Your task to perform on an android device: delete a single message in the gmail app Image 0: 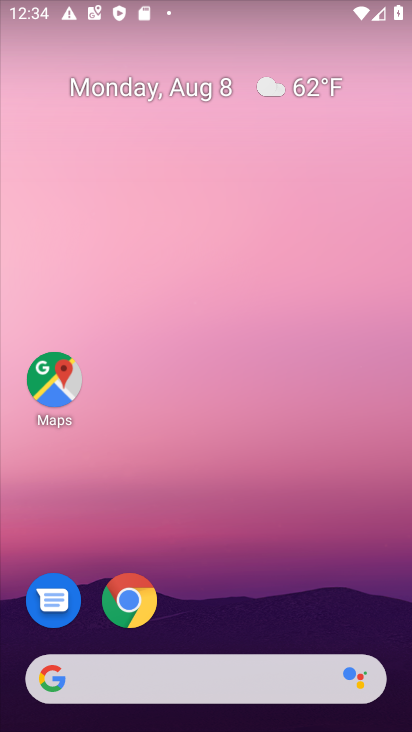
Step 0: drag from (225, 602) to (231, 204)
Your task to perform on an android device: delete a single message in the gmail app Image 1: 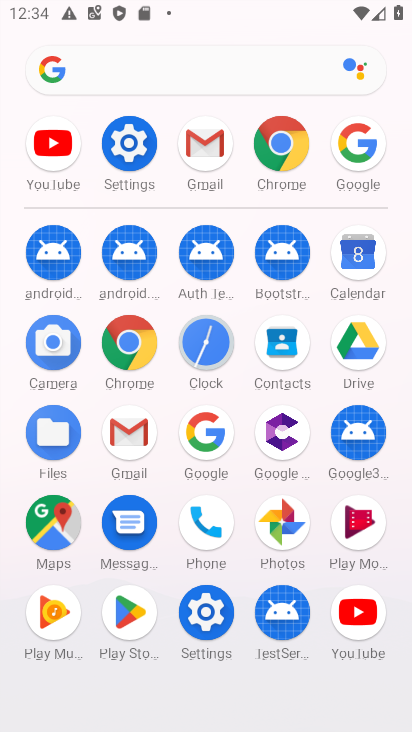
Step 1: click (216, 162)
Your task to perform on an android device: delete a single message in the gmail app Image 2: 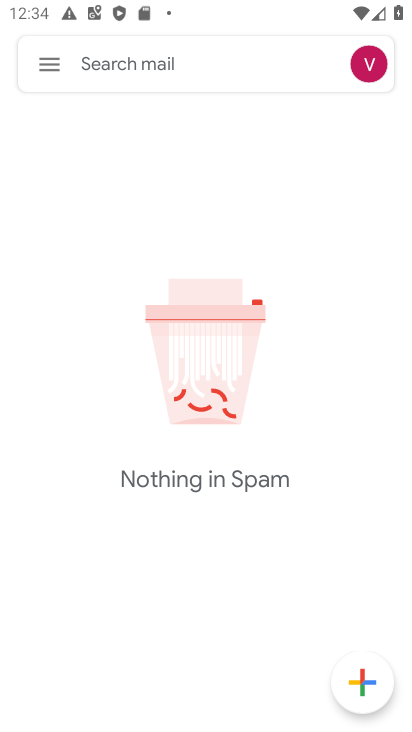
Step 2: click (60, 70)
Your task to perform on an android device: delete a single message in the gmail app Image 3: 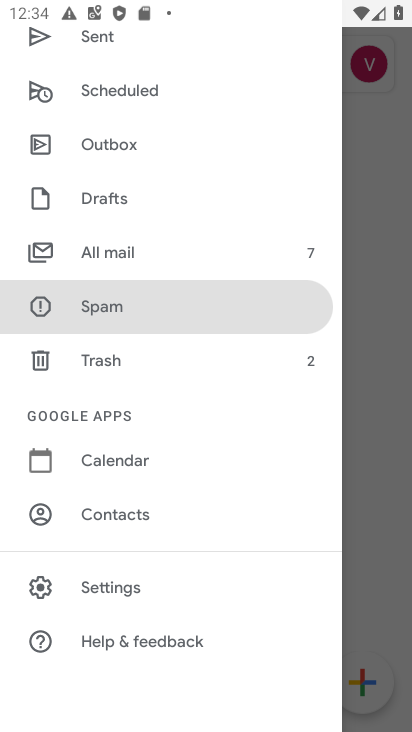
Step 3: click (140, 245)
Your task to perform on an android device: delete a single message in the gmail app Image 4: 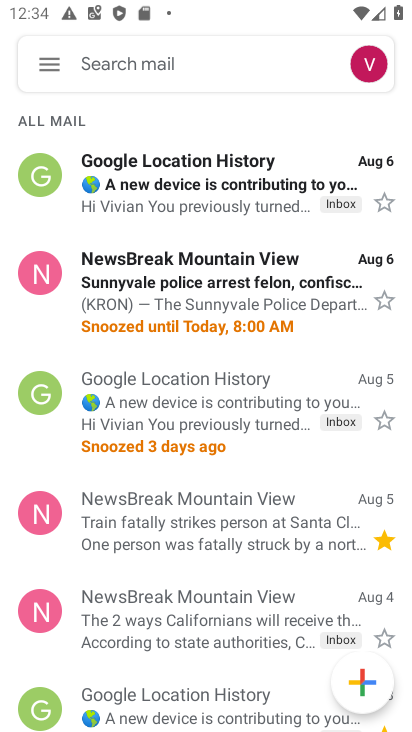
Step 4: click (53, 73)
Your task to perform on an android device: delete a single message in the gmail app Image 5: 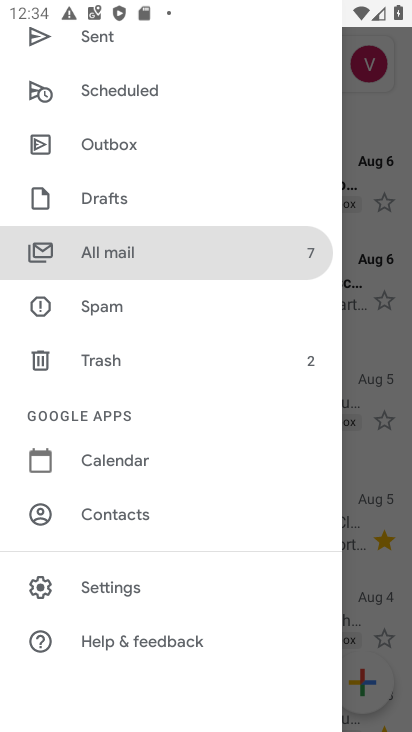
Step 5: click (120, 580)
Your task to perform on an android device: delete a single message in the gmail app Image 6: 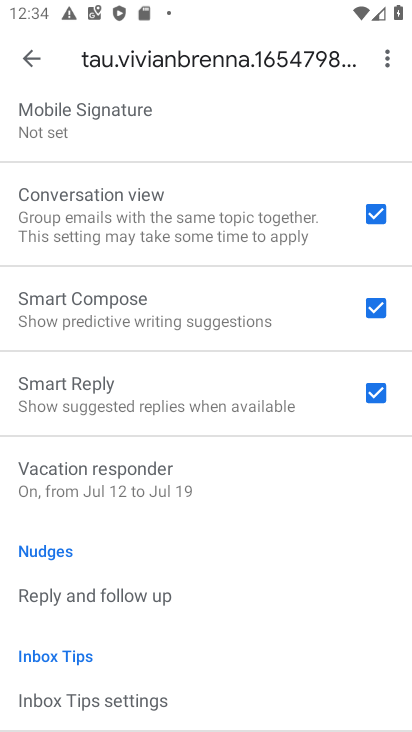
Step 6: click (23, 60)
Your task to perform on an android device: delete a single message in the gmail app Image 7: 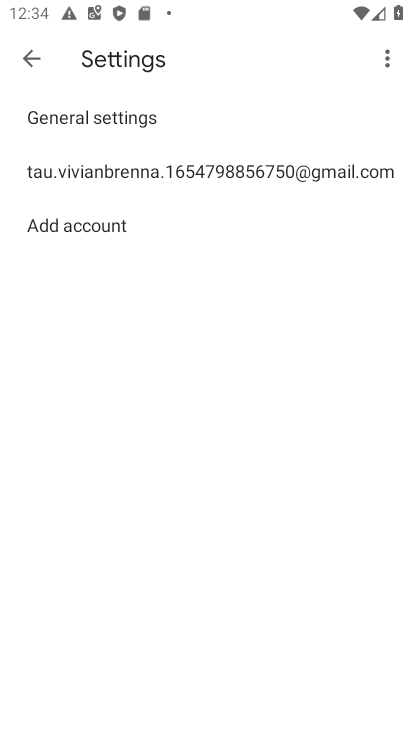
Step 7: click (31, 65)
Your task to perform on an android device: delete a single message in the gmail app Image 8: 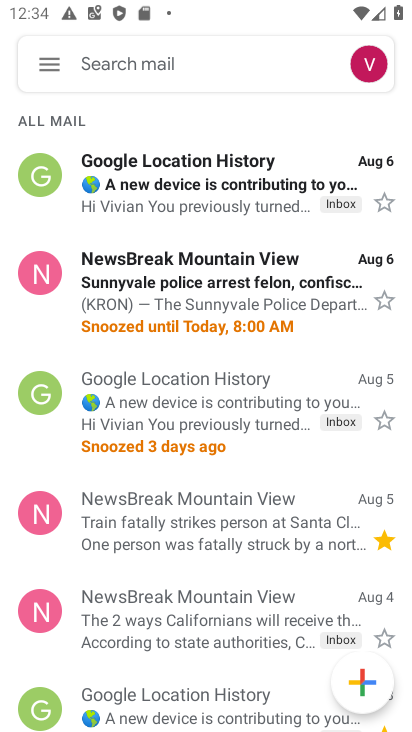
Step 8: click (178, 180)
Your task to perform on an android device: delete a single message in the gmail app Image 9: 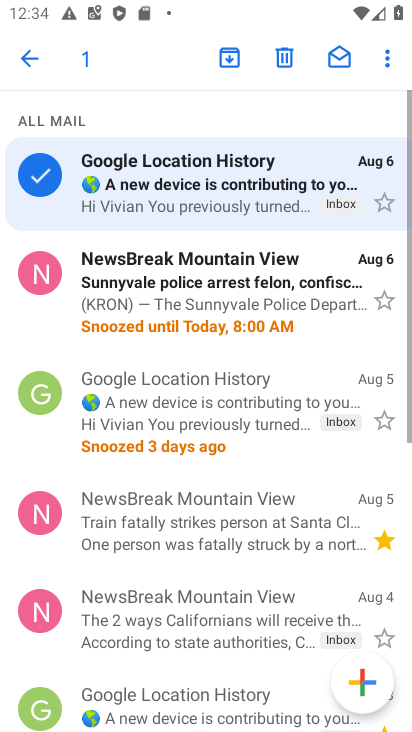
Step 9: click (278, 60)
Your task to perform on an android device: delete a single message in the gmail app Image 10: 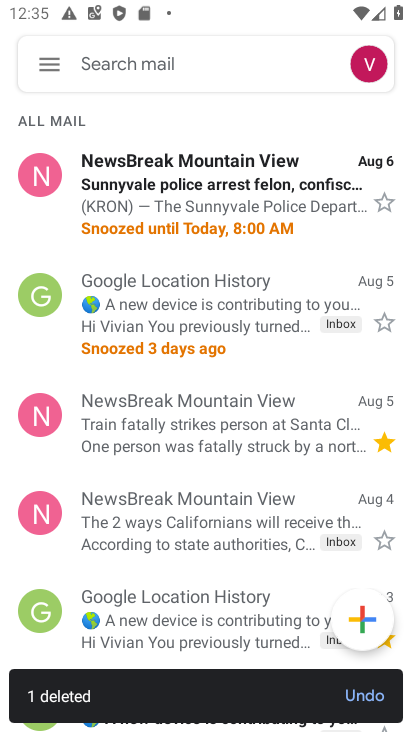
Step 10: task complete